Your task to perform on an android device: Go to Amazon Image 0: 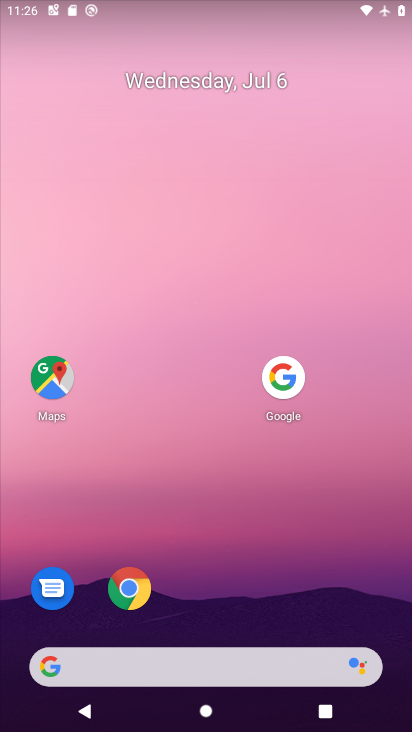
Step 0: click (125, 593)
Your task to perform on an android device: Go to Amazon Image 1: 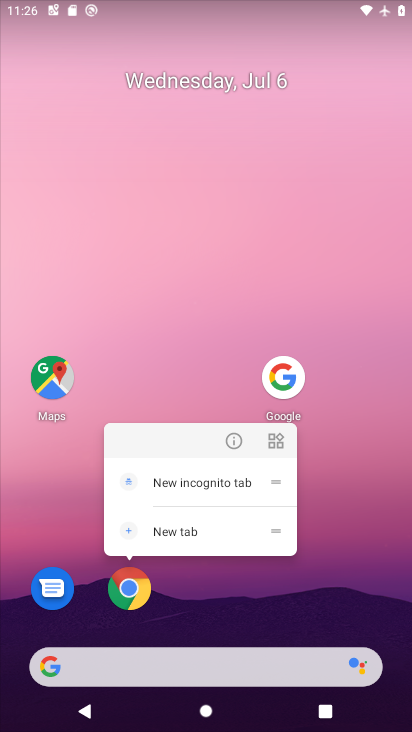
Step 1: click (130, 588)
Your task to perform on an android device: Go to Amazon Image 2: 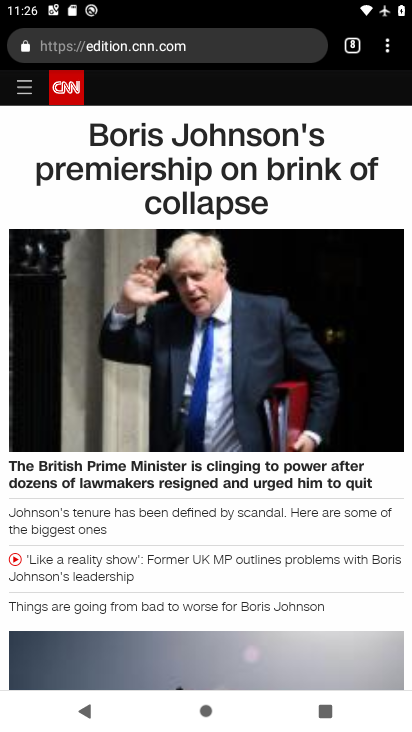
Step 2: click (387, 59)
Your task to perform on an android device: Go to Amazon Image 3: 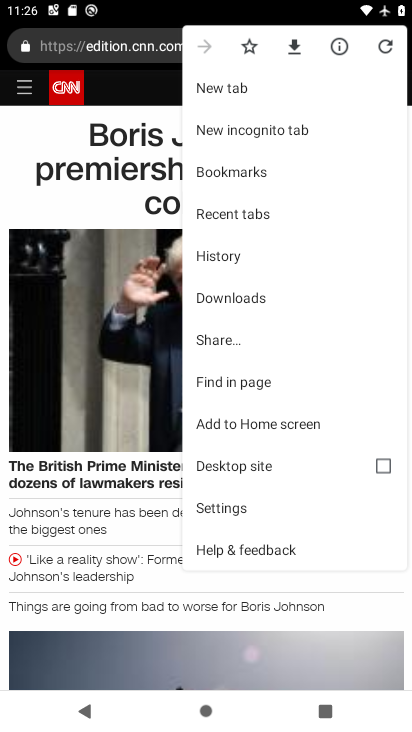
Step 3: click (259, 81)
Your task to perform on an android device: Go to Amazon Image 4: 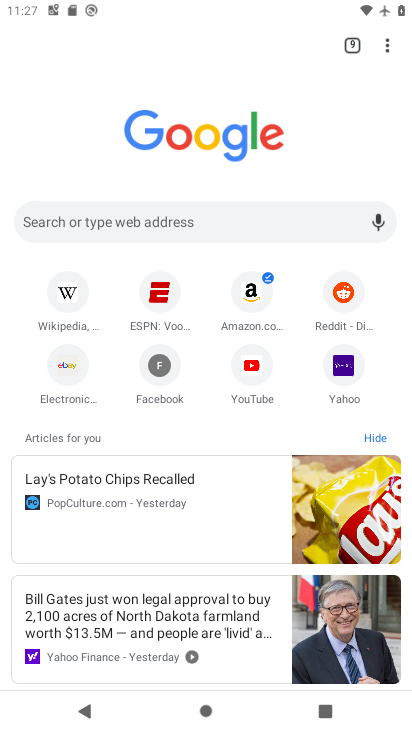
Step 4: click (253, 290)
Your task to perform on an android device: Go to Amazon Image 5: 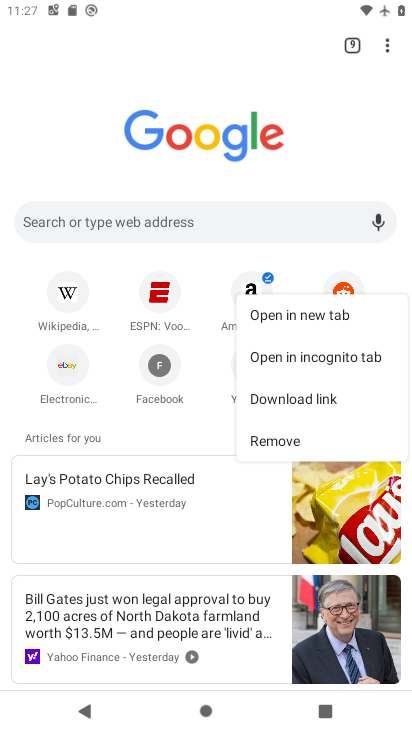
Step 5: click (249, 278)
Your task to perform on an android device: Go to Amazon Image 6: 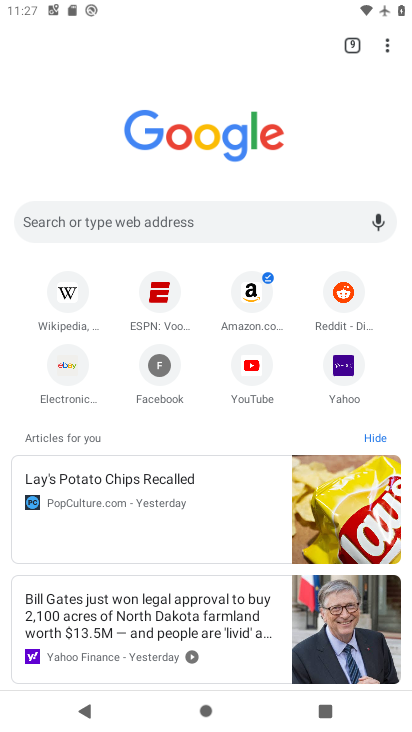
Step 6: click (249, 297)
Your task to perform on an android device: Go to Amazon Image 7: 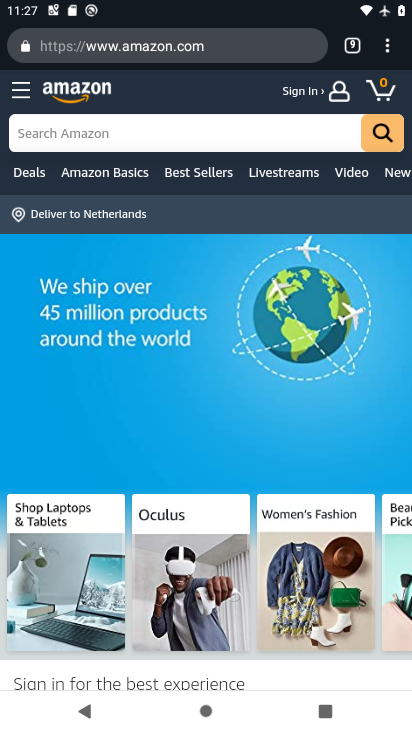
Step 7: task complete